Your task to perform on an android device: read, delete, or share a saved page in the chrome app Image 0: 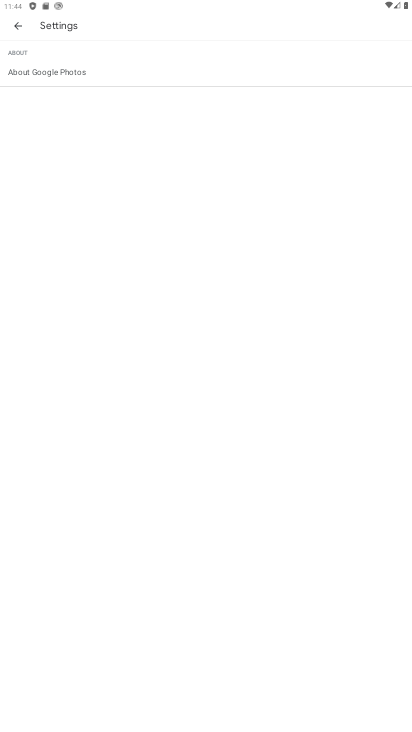
Step 0: press home button
Your task to perform on an android device: read, delete, or share a saved page in the chrome app Image 1: 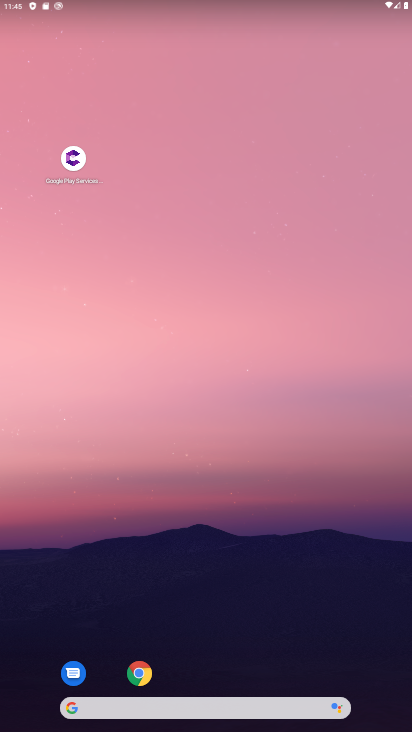
Step 1: click (140, 671)
Your task to perform on an android device: read, delete, or share a saved page in the chrome app Image 2: 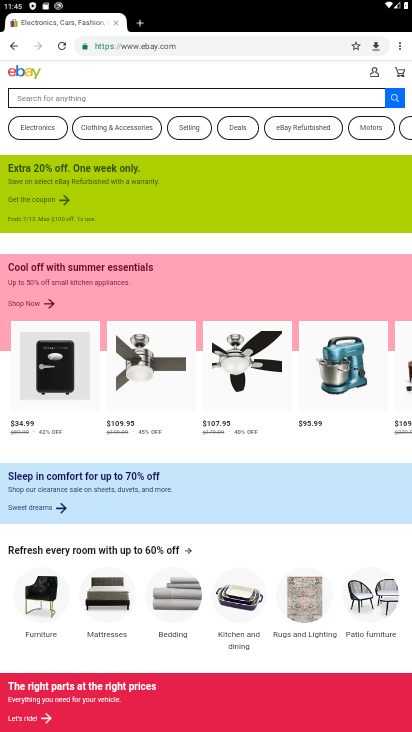
Step 2: click (401, 42)
Your task to perform on an android device: read, delete, or share a saved page in the chrome app Image 3: 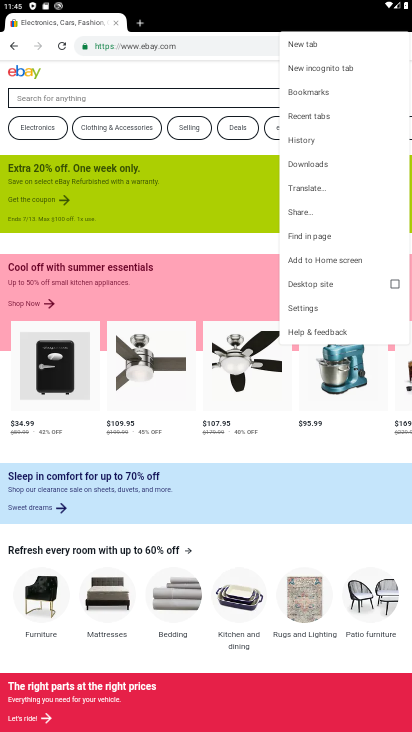
Step 3: click (322, 162)
Your task to perform on an android device: read, delete, or share a saved page in the chrome app Image 4: 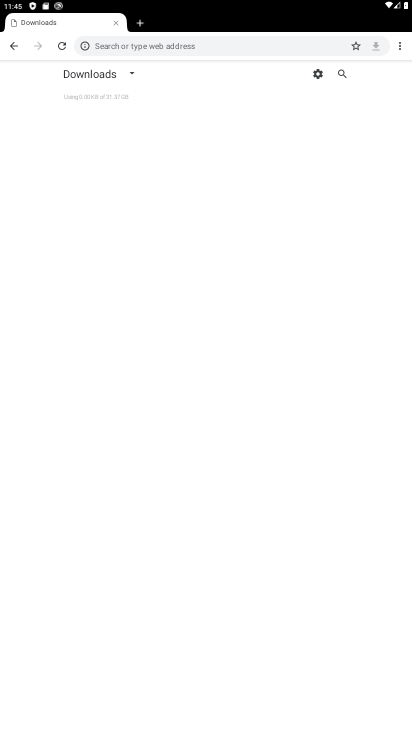
Step 4: click (131, 74)
Your task to perform on an android device: read, delete, or share a saved page in the chrome app Image 5: 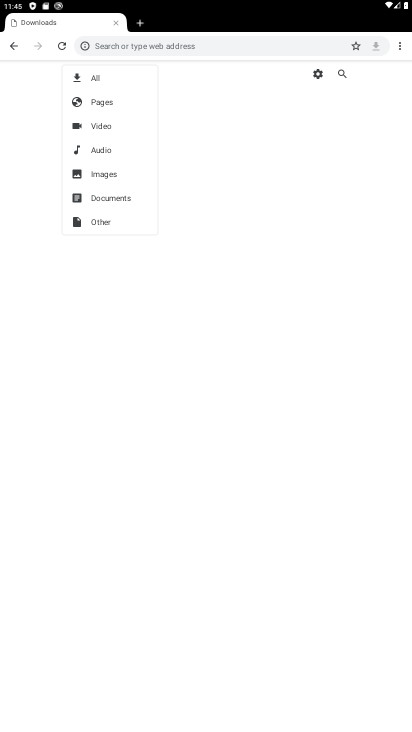
Step 5: click (107, 98)
Your task to perform on an android device: read, delete, or share a saved page in the chrome app Image 6: 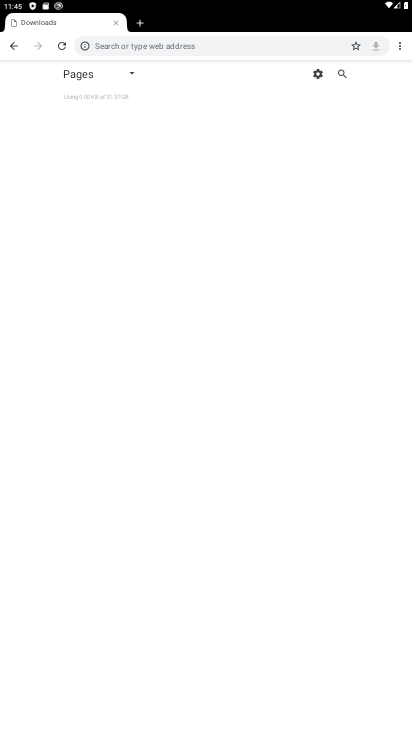
Step 6: click (129, 72)
Your task to perform on an android device: read, delete, or share a saved page in the chrome app Image 7: 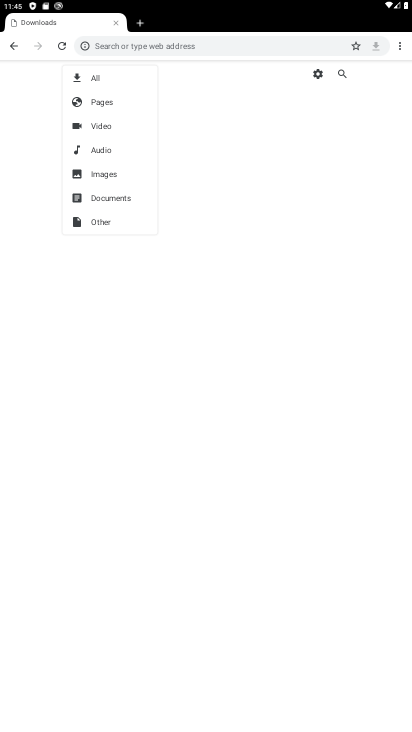
Step 7: click (110, 126)
Your task to perform on an android device: read, delete, or share a saved page in the chrome app Image 8: 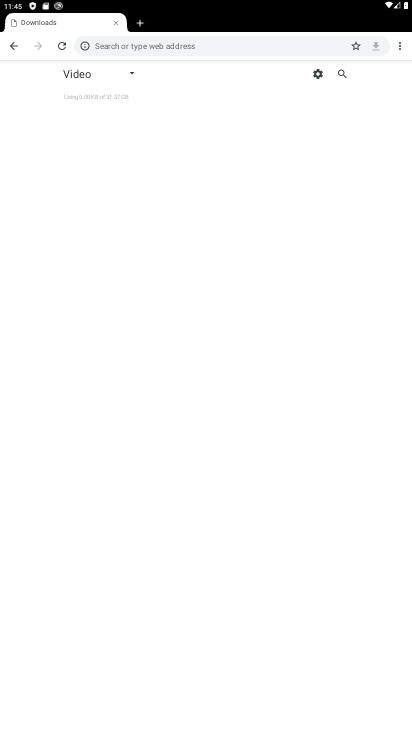
Step 8: click (136, 67)
Your task to perform on an android device: read, delete, or share a saved page in the chrome app Image 9: 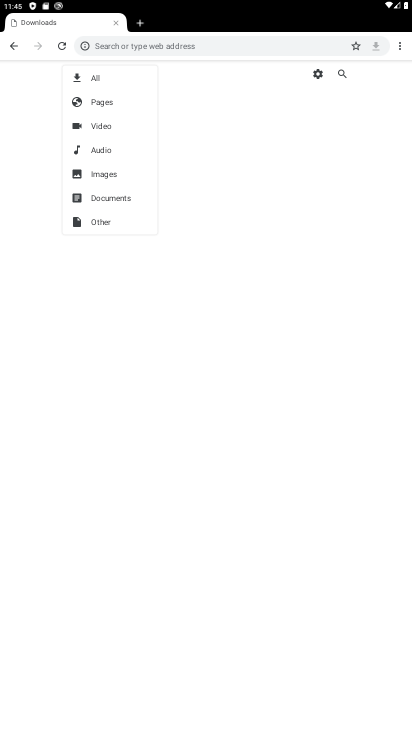
Step 9: click (107, 150)
Your task to perform on an android device: read, delete, or share a saved page in the chrome app Image 10: 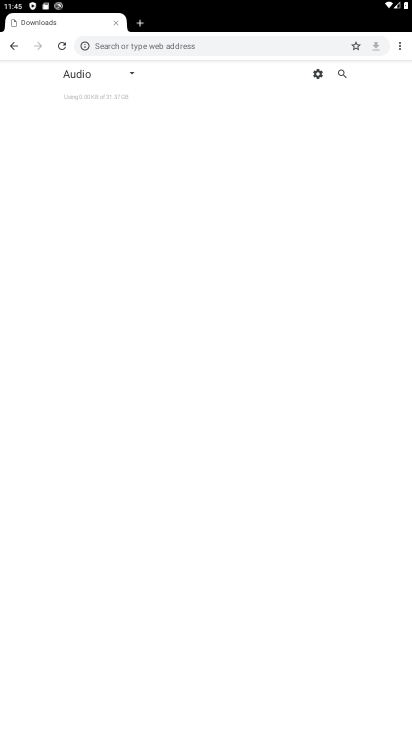
Step 10: click (131, 74)
Your task to perform on an android device: read, delete, or share a saved page in the chrome app Image 11: 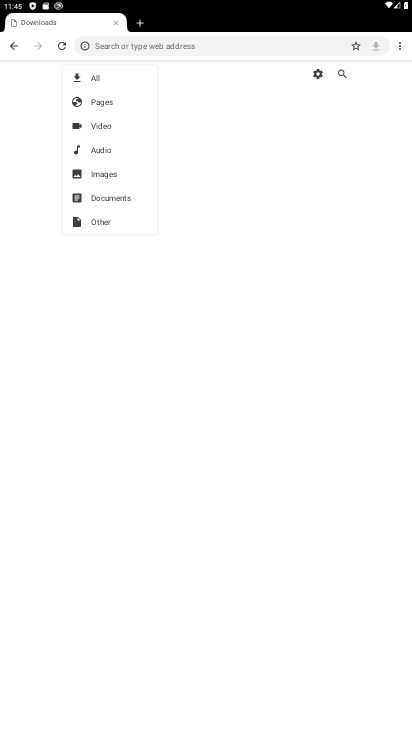
Step 11: click (101, 198)
Your task to perform on an android device: read, delete, or share a saved page in the chrome app Image 12: 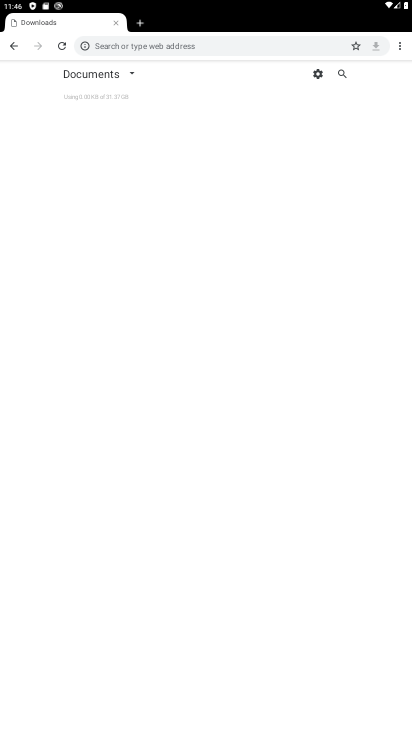
Step 12: task complete